Your task to perform on an android device: search for starred emails in the gmail app Image 0: 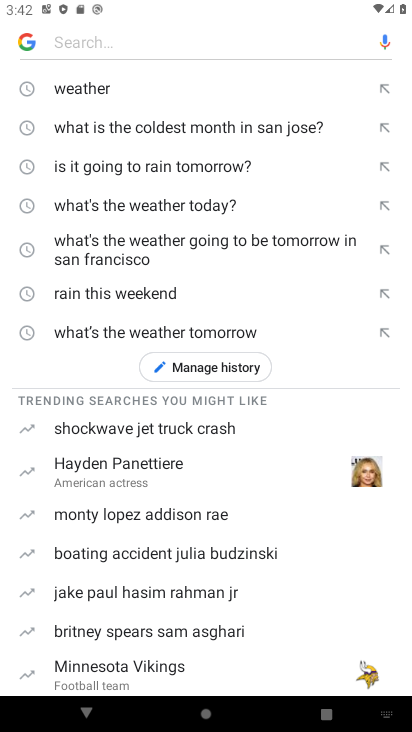
Step 0: press back button
Your task to perform on an android device: search for starred emails in the gmail app Image 1: 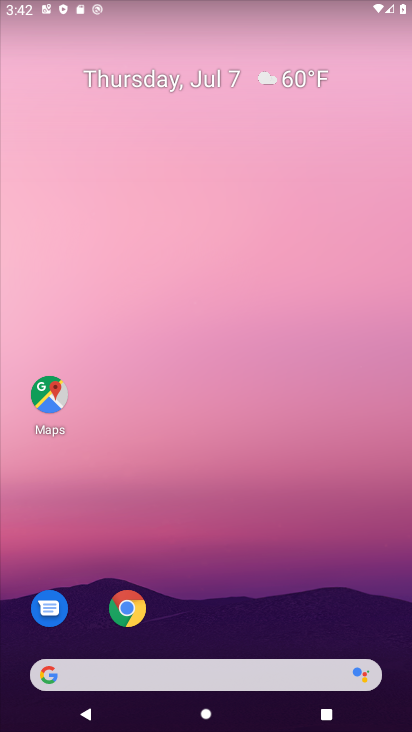
Step 1: drag from (276, 669) to (327, 153)
Your task to perform on an android device: search for starred emails in the gmail app Image 2: 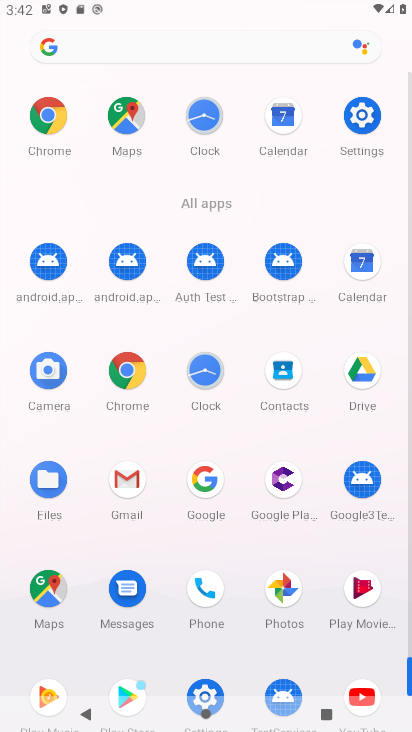
Step 2: click (121, 490)
Your task to perform on an android device: search for starred emails in the gmail app Image 3: 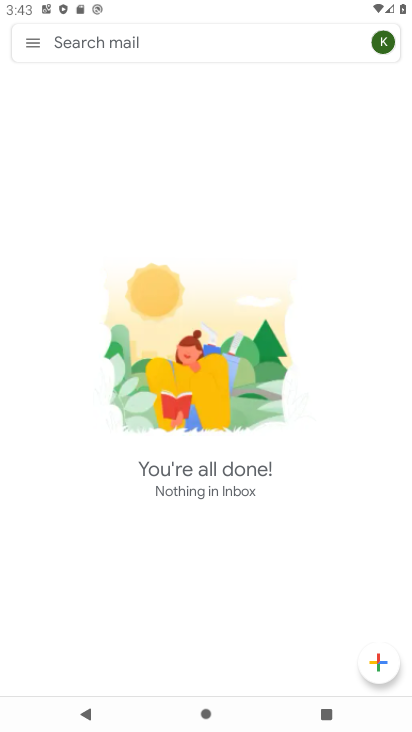
Step 3: click (40, 44)
Your task to perform on an android device: search for starred emails in the gmail app Image 4: 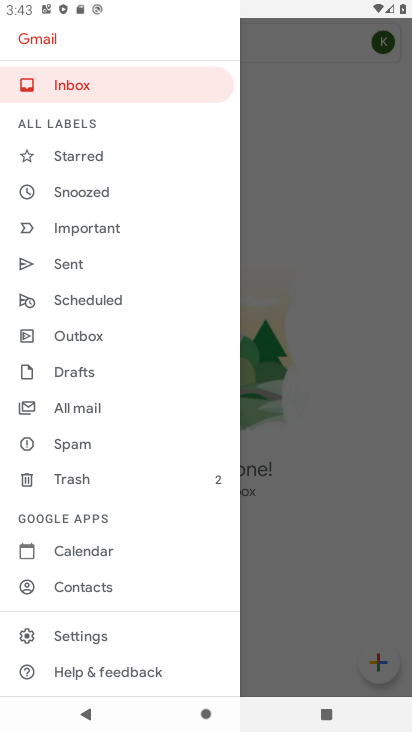
Step 4: click (83, 159)
Your task to perform on an android device: search for starred emails in the gmail app Image 5: 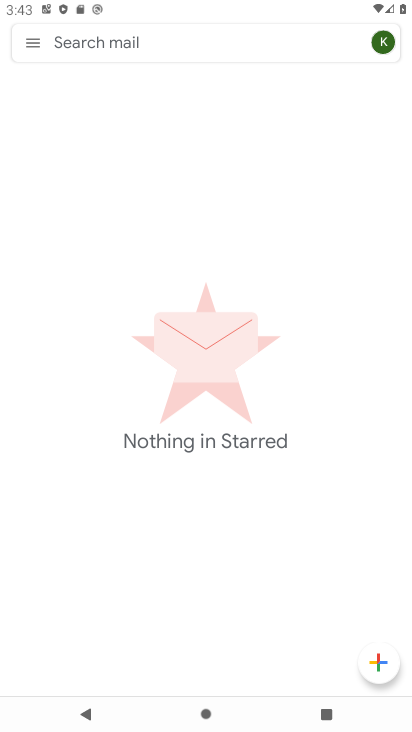
Step 5: task complete